Your task to perform on an android device: Open calendar and show me the second week of next month Image 0: 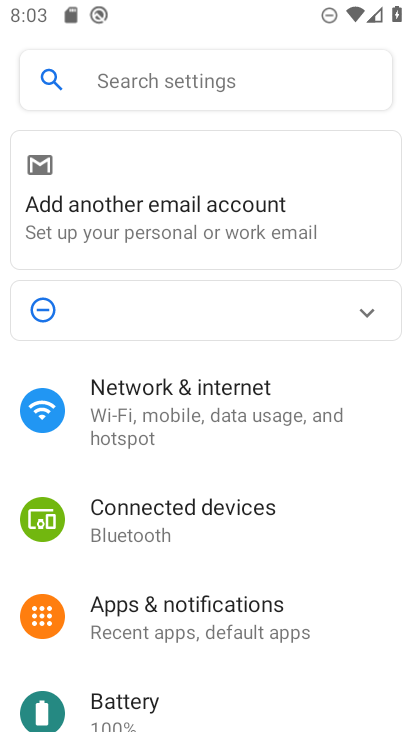
Step 0: press home button
Your task to perform on an android device: Open calendar and show me the second week of next month Image 1: 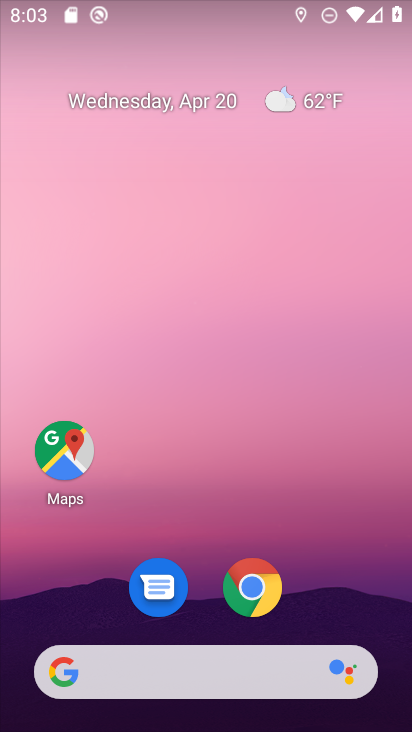
Step 1: drag from (312, 581) to (253, 0)
Your task to perform on an android device: Open calendar and show me the second week of next month Image 2: 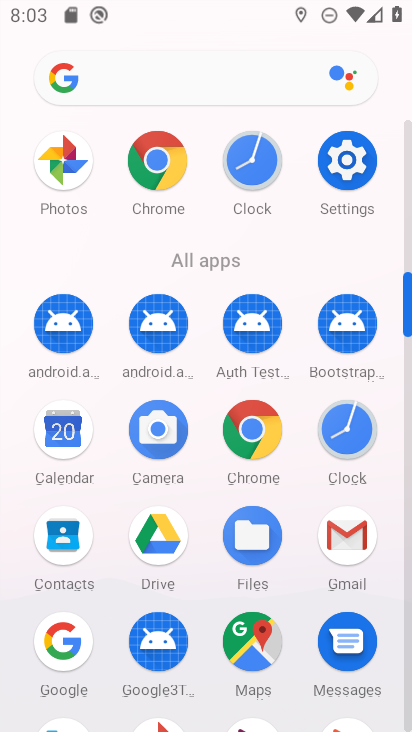
Step 2: click (70, 431)
Your task to perform on an android device: Open calendar and show me the second week of next month Image 3: 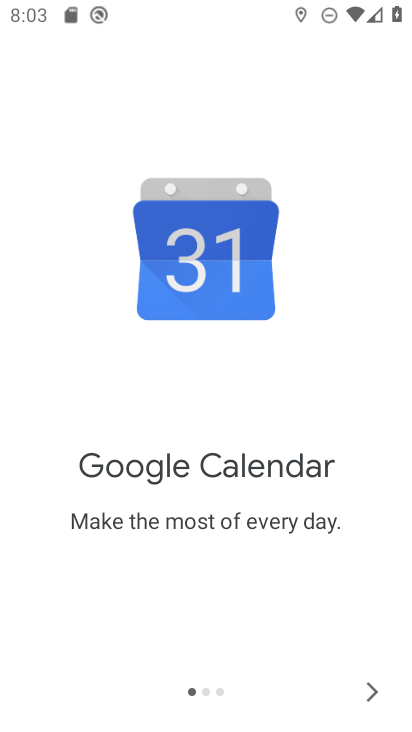
Step 3: click (374, 688)
Your task to perform on an android device: Open calendar and show me the second week of next month Image 4: 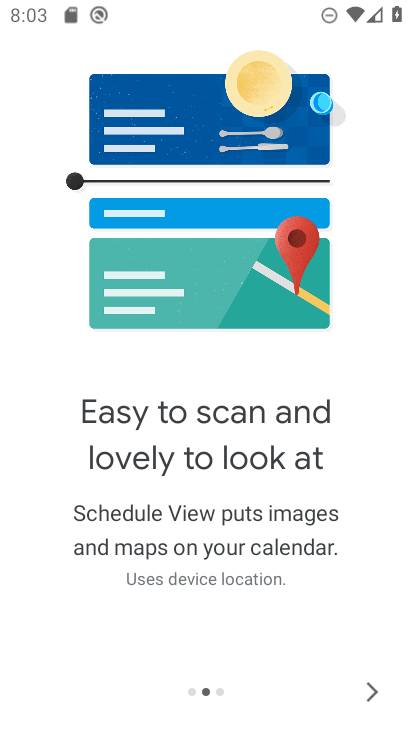
Step 4: click (374, 688)
Your task to perform on an android device: Open calendar and show me the second week of next month Image 5: 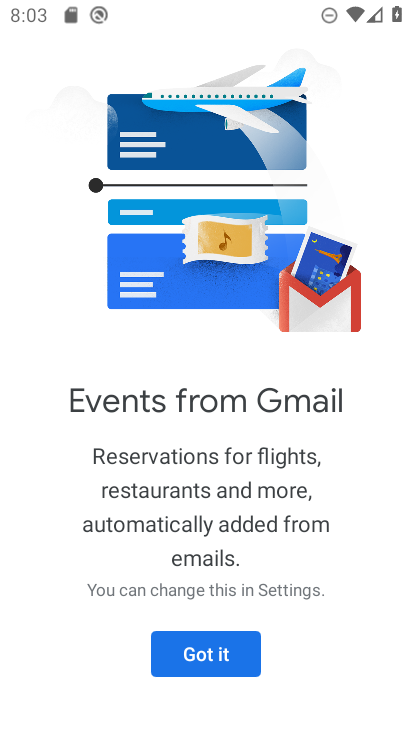
Step 5: click (220, 653)
Your task to perform on an android device: Open calendar and show me the second week of next month Image 6: 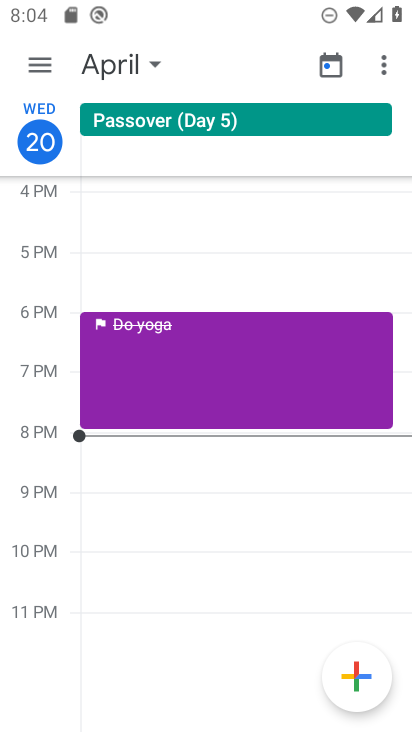
Step 6: click (139, 58)
Your task to perform on an android device: Open calendar and show me the second week of next month Image 7: 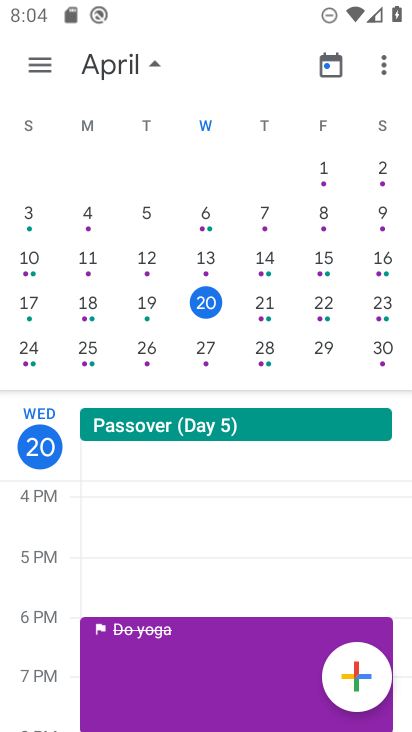
Step 7: drag from (347, 271) to (7, 248)
Your task to perform on an android device: Open calendar and show me the second week of next month Image 8: 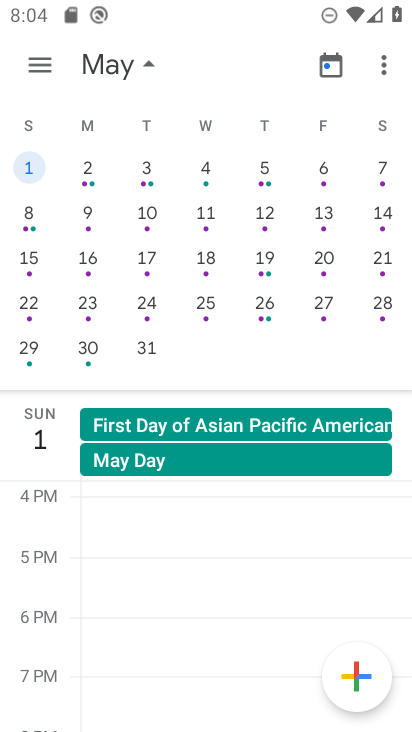
Step 8: click (89, 216)
Your task to perform on an android device: Open calendar and show me the second week of next month Image 9: 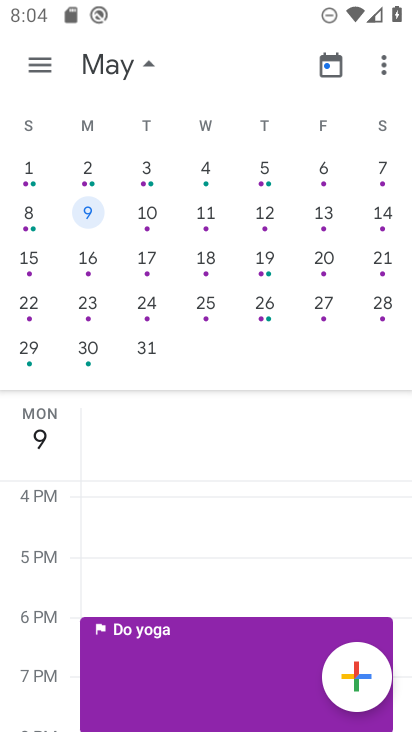
Step 9: click (49, 63)
Your task to perform on an android device: Open calendar and show me the second week of next month Image 10: 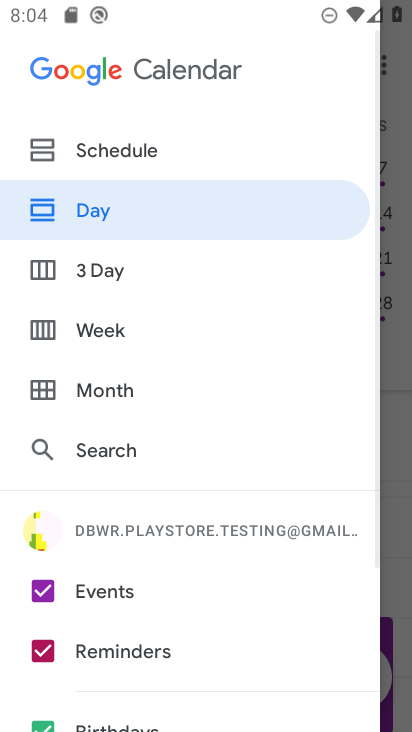
Step 10: click (147, 329)
Your task to perform on an android device: Open calendar and show me the second week of next month Image 11: 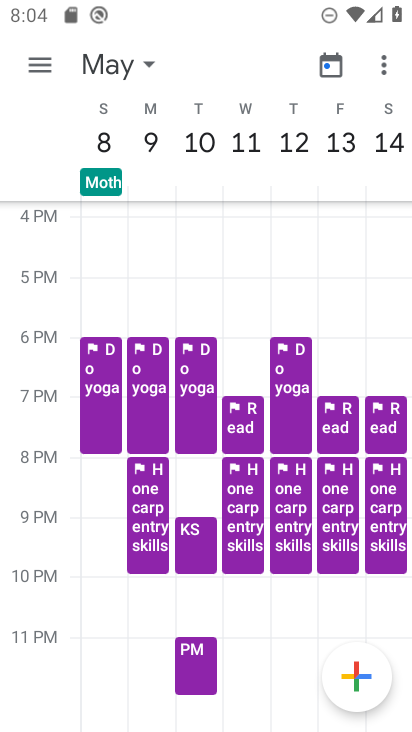
Step 11: task complete